Your task to perform on an android device: Go to wifi settings Image 0: 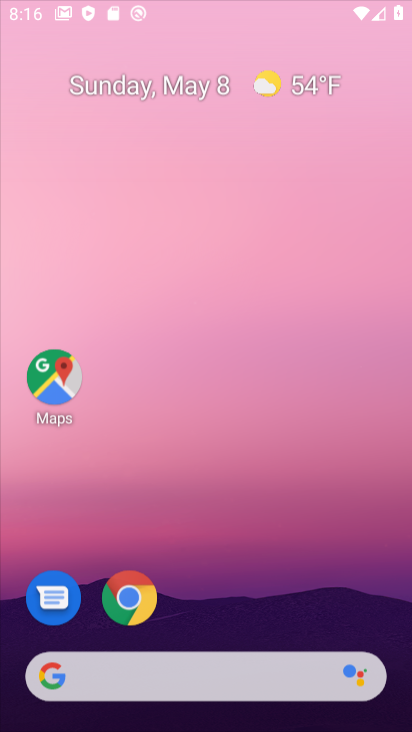
Step 0: click (76, 388)
Your task to perform on an android device: Go to wifi settings Image 1: 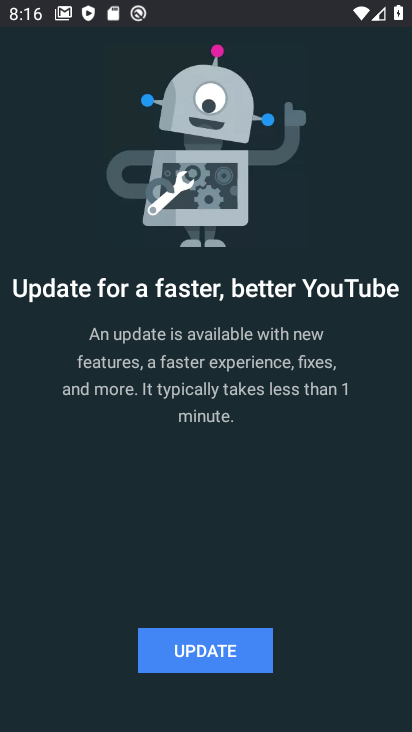
Step 1: drag from (243, 16) to (392, 529)
Your task to perform on an android device: Go to wifi settings Image 2: 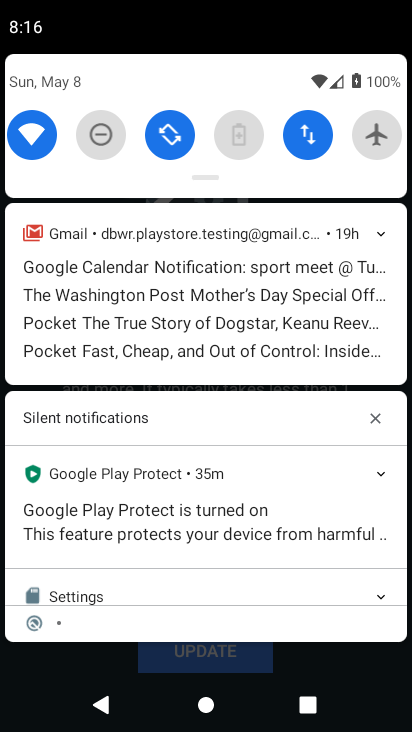
Step 2: click (31, 147)
Your task to perform on an android device: Go to wifi settings Image 3: 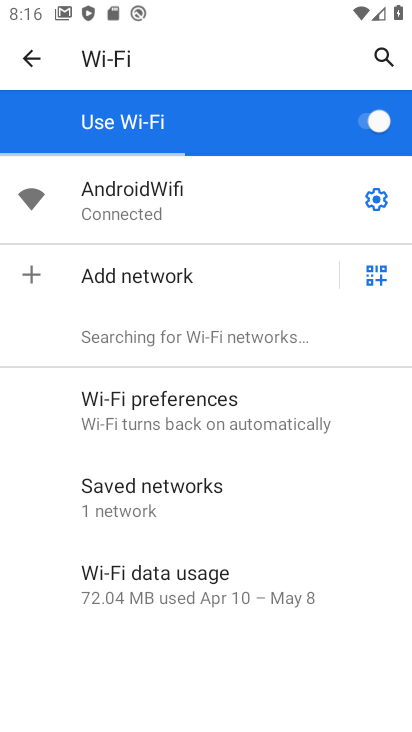
Step 3: task complete